Your task to perform on an android device: check android version Image 0: 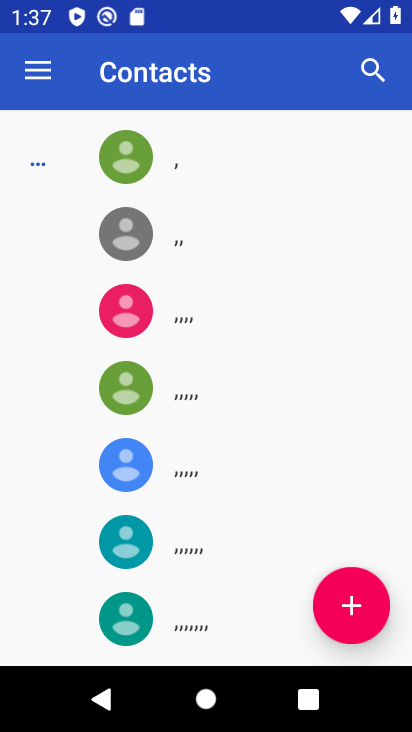
Step 0: press home button
Your task to perform on an android device: check android version Image 1: 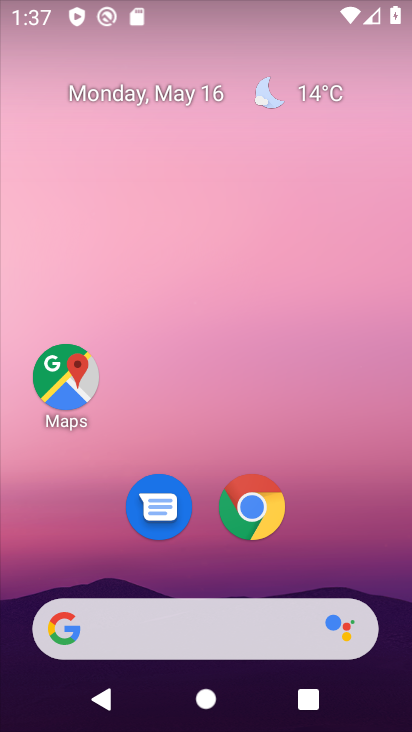
Step 1: drag from (195, 551) to (209, 213)
Your task to perform on an android device: check android version Image 2: 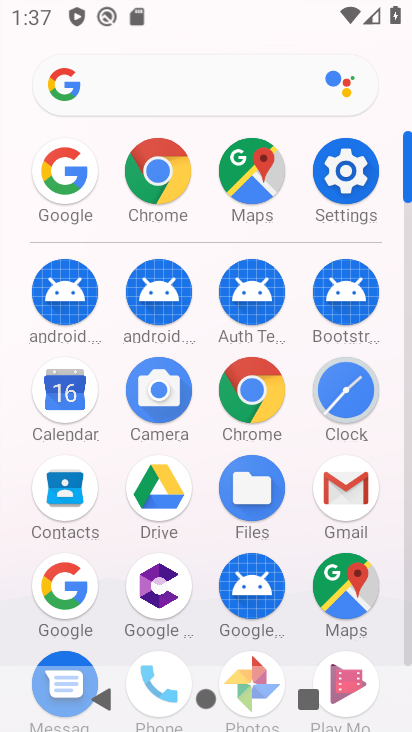
Step 2: click (365, 175)
Your task to perform on an android device: check android version Image 3: 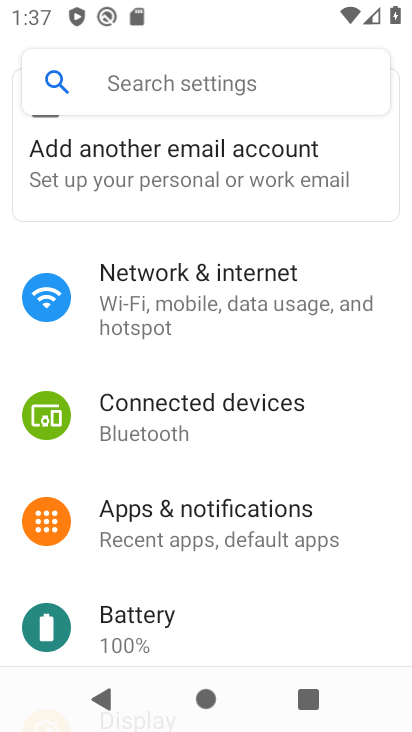
Step 3: drag from (312, 560) to (282, 78)
Your task to perform on an android device: check android version Image 4: 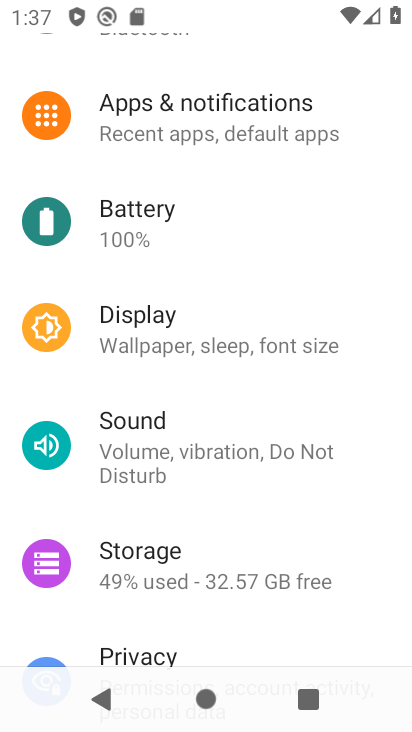
Step 4: drag from (246, 637) to (243, 23)
Your task to perform on an android device: check android version Image 5: 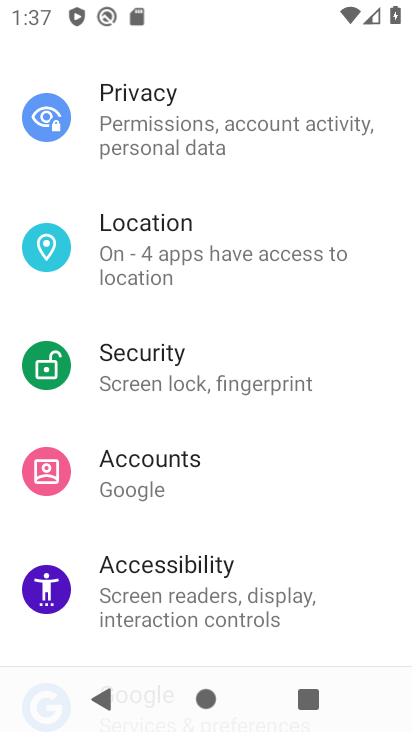
Step 5: drag from (265, 609) to (266, 93)
Your task to perform on an android device: check android version Image 6: 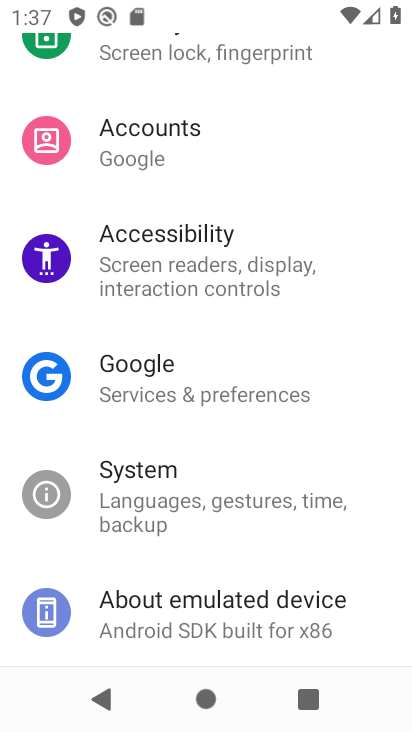
Step 6: click (213, 611)
Your task to perform on an android device: check android version Image 7: 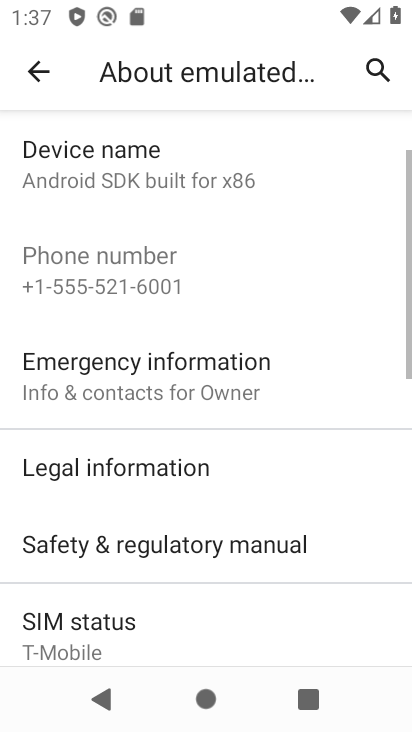
Step 7: drag from (213, 609) to (220, 182)
Your task to perform on an android device: check android version Image 8: 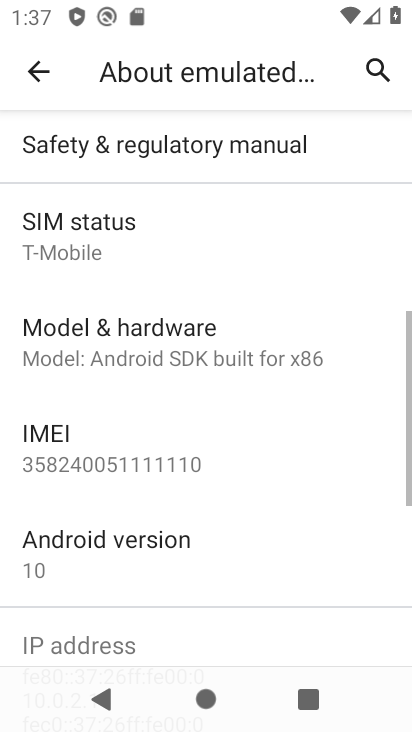
Step 8: click (141, 567)
Your task to perform on an android device: check android version Image 9: 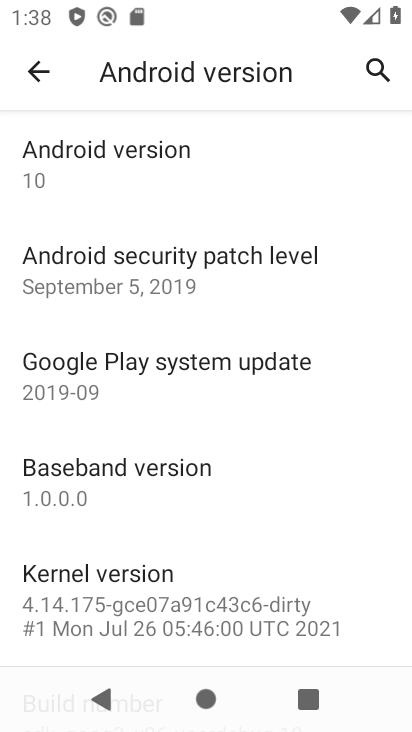
Step 9: task complete